Your task to perform on an android device: see sites visited before in the chrome app Image 0: 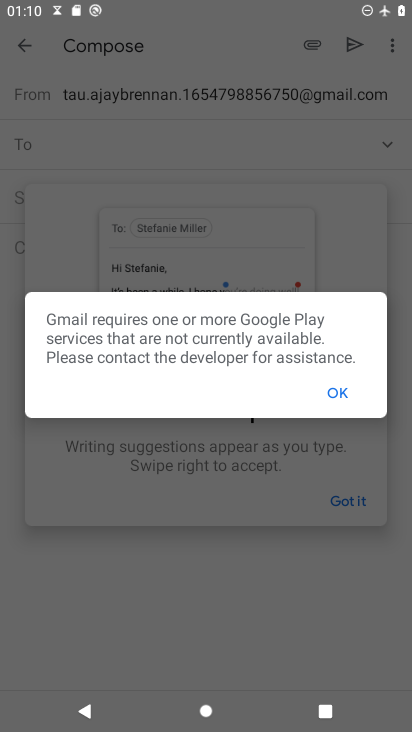
Step 0: press home button
Your task to perform on an android device: see sites visited before in the chrome app Image 1: 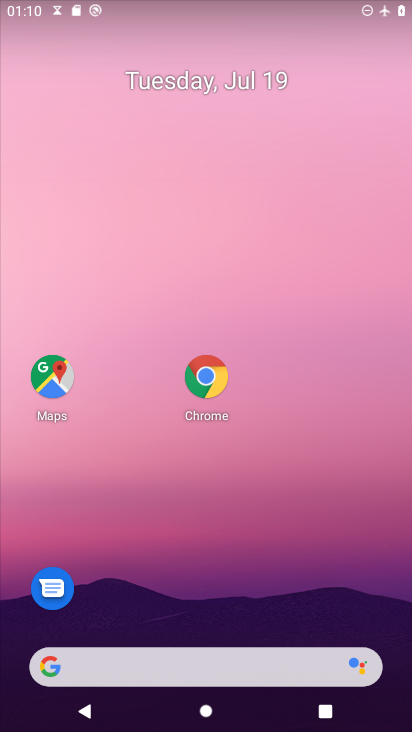
Step 1: drag from (322, 537) to (368, 22)
Your task to perform on an android device: see sites visited before in the chrome app Image 2: 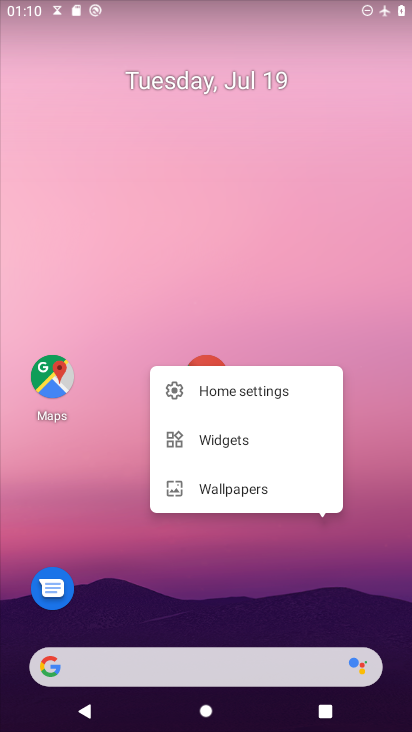
Step 2: click (220, 242)
Your task to perform on an android device: see sites visited before in the chrome app Image 3: 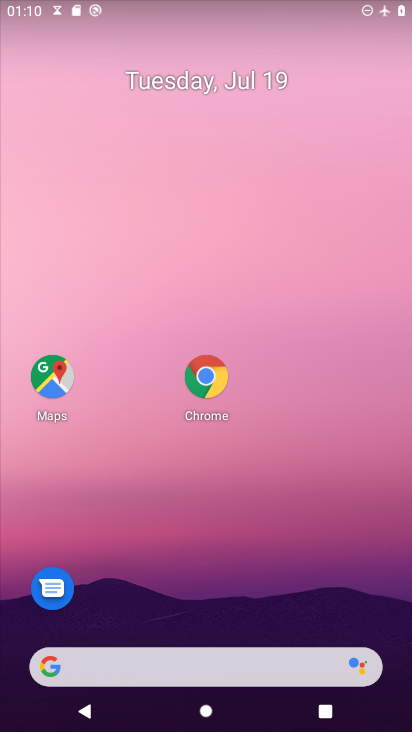
Step 3: click (201, 366)
Your task to perform on an android device: see sites visited before in the chrome app Image 4: 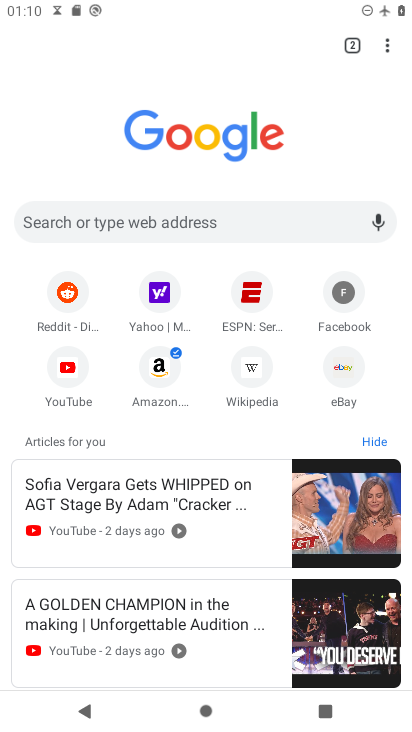
Step 4: task complete